Your task to perform on an android device: Is it going to rain tomorrow? Image 0: 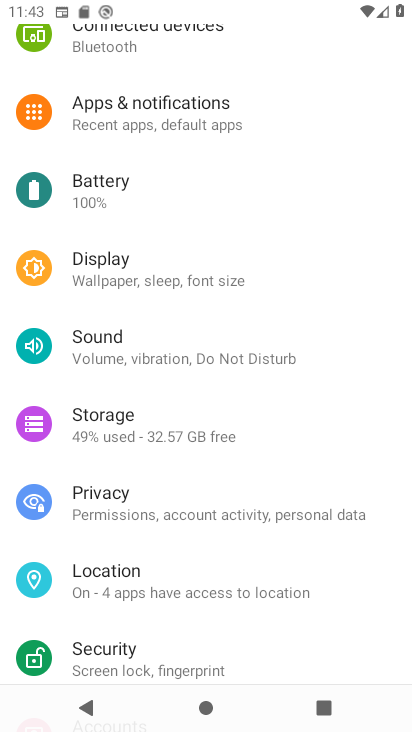
Step 0: press home button
Your task to perform on an android device: Is it going to rain tomorrow? Image 1: 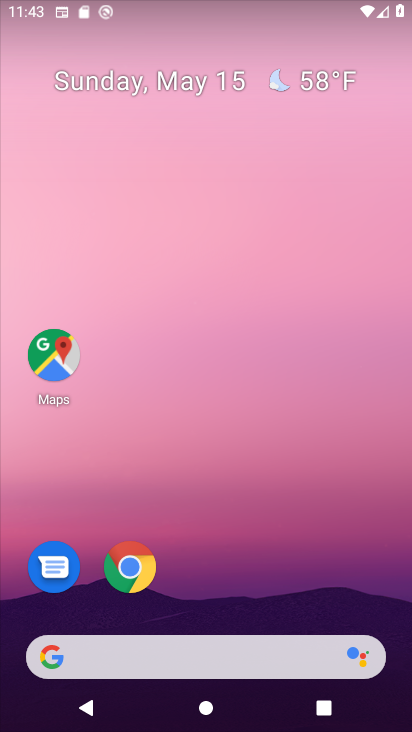
Step 1: click (332, 87)
Your task to perform on an android device: Is it going to rain tomorrow? Image 2: 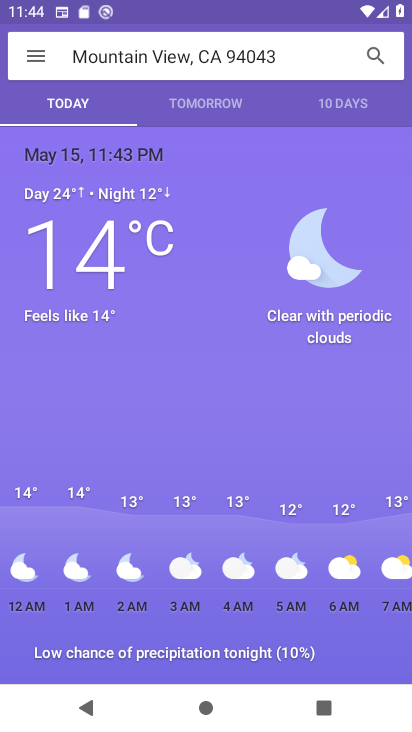
Step 2: click (191, 110)
Your task to perform on an android device: Is it going to rain tomorrow? Image 3: 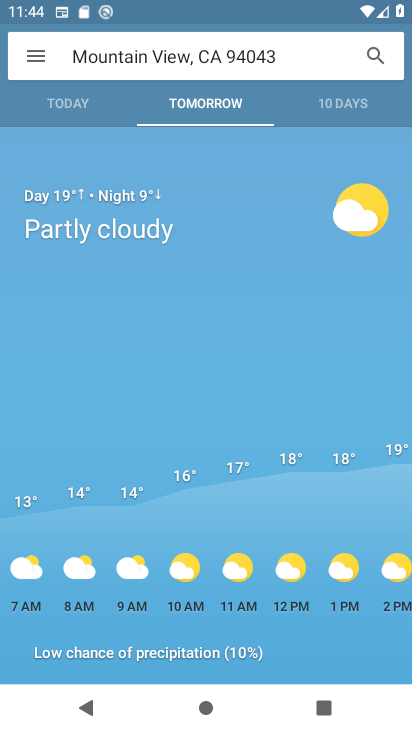
Step 3: task complete